Your task to perform on an android device: change your default location settings in chrome Image 0: 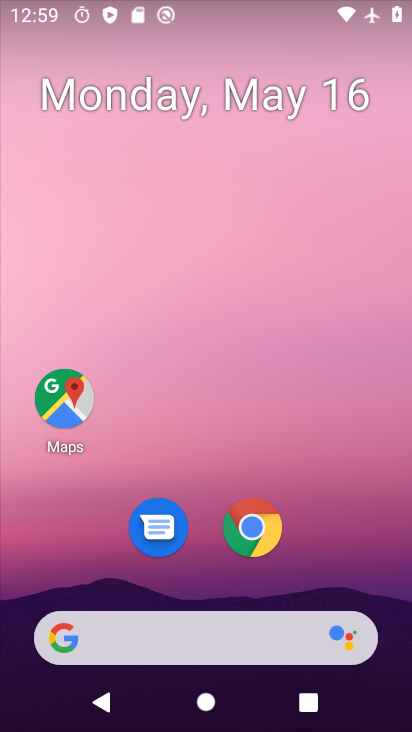
Step 0: press home button
Your task to perform on an android device: change your default location settings in chrome Image 1: 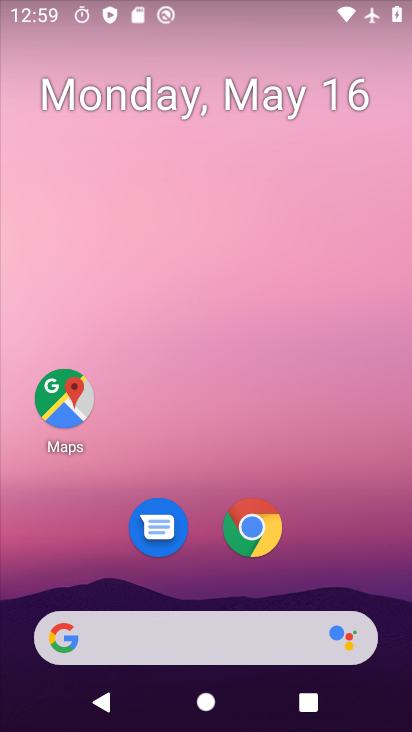
Step 1: drag from (162, 644) to (307, 128)
Your task to perform on an android device: change your default location settings in chrome Image 2: 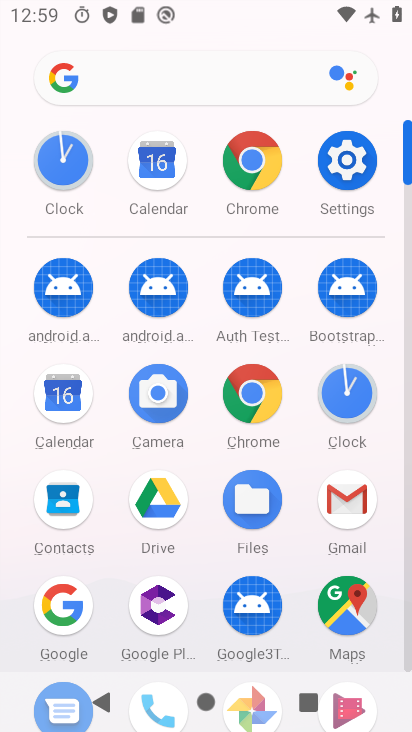
Step 2: click (260, 174)
Your task to perform on an android device: change your default location settings in chrome Image 3: 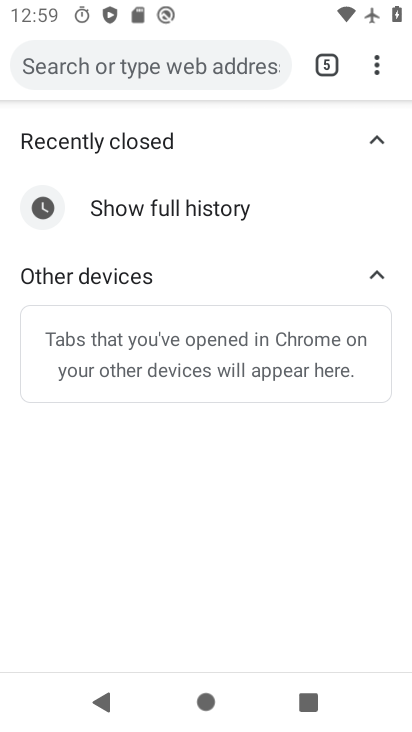
Step 3: drag from (373, 71) to (195, 534)
Your task to perform on an android device: change your default location settings in chrome Image 4: 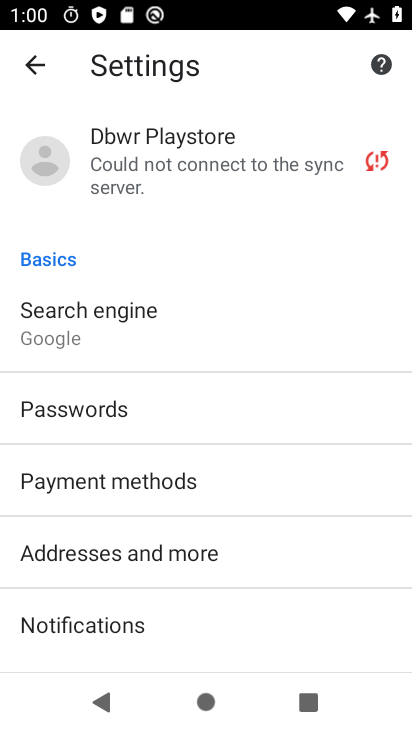
Step 4: drag from (161, 583) to (291, 242)
Your task to perform on an android device: change your default location settings in chrome Image 5: 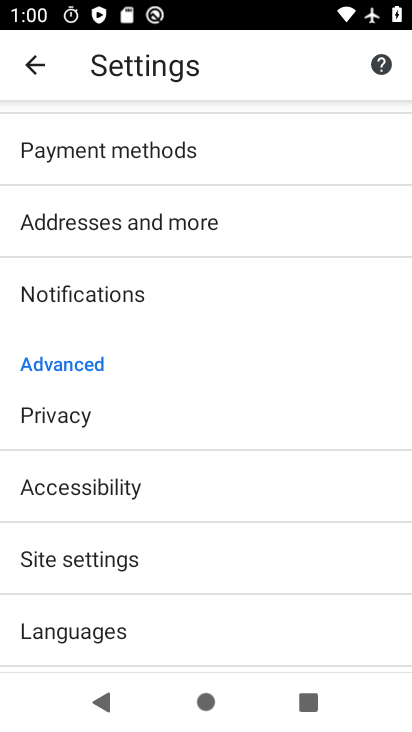
Step 5: drag from (149, 575) to (293, 296)
Your task to perform on an android device: change your default location settings in chrome Image 6: 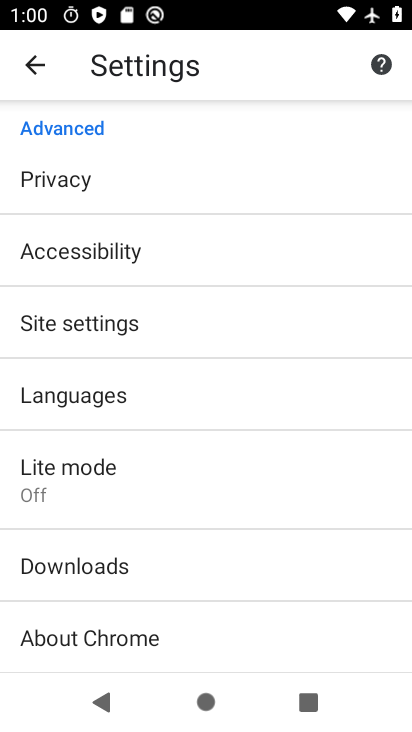
Step 6: click (103, 330)
Your task to perform on an android device: change your default location settings in chrome Image 7: 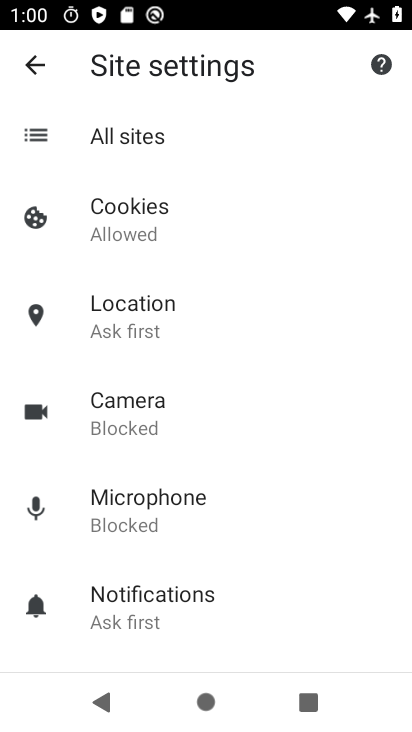
Step 7: click (146, 318)
Your task to perform on an android device: change your default location settings in chrome Image 8: 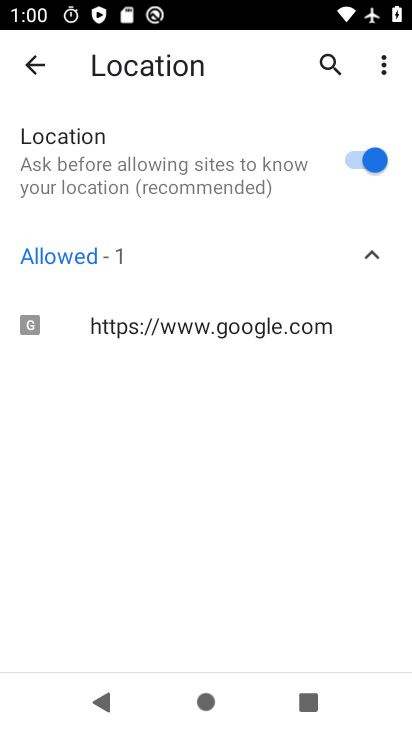
Step 8: click (349, 157)
Your task to perform on an android device: change your default location settings in chrome Image 9: 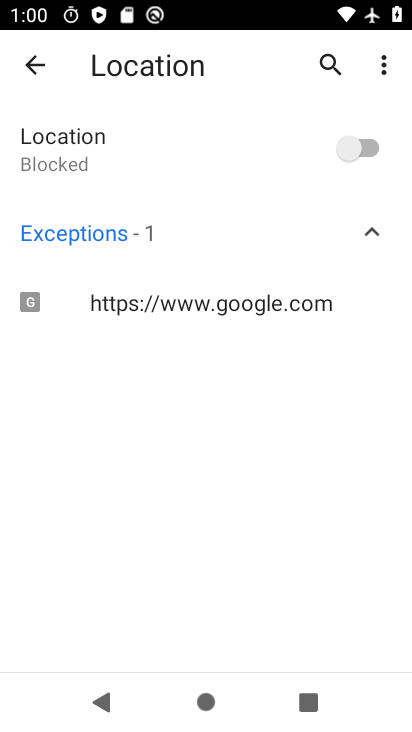
Step 9: task complete